Your task to perform on an android device: Turn on the flashlight Image 0: 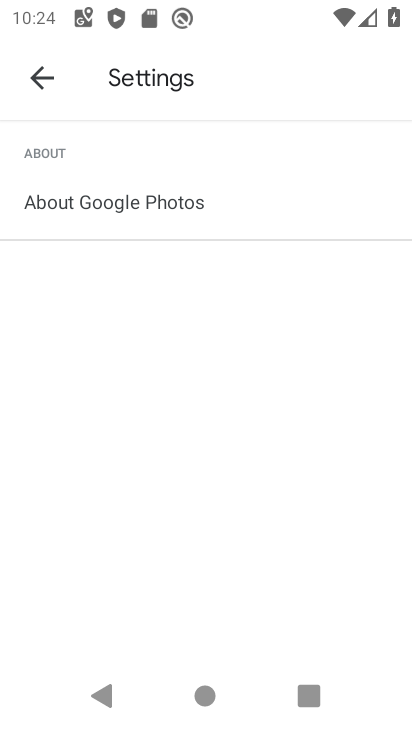
Step 0: press back button
Your task to perform on an android device: Turn on the flashlight Image 1: 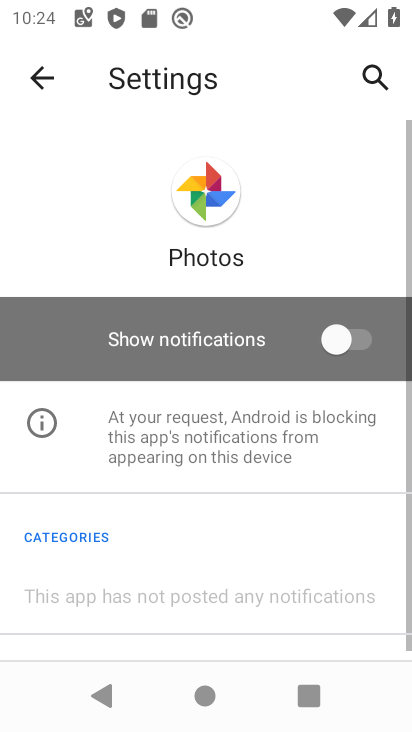
Step 1: drag from (13, 652) to (397, 99)
Your task to perform on an android device: Turn on the flashlight Image 2: 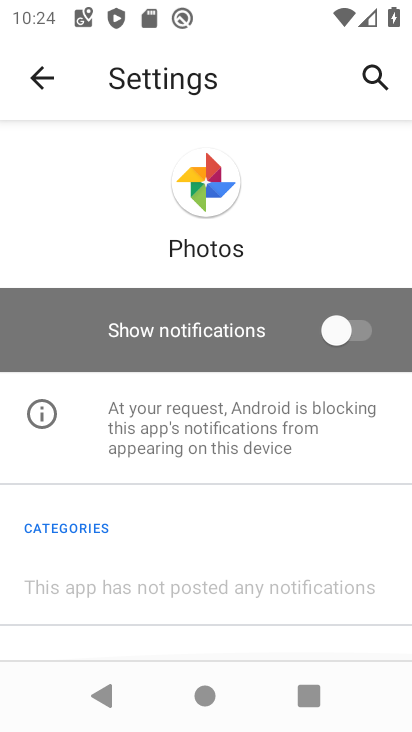
Step 2: press home button
Your task to perform on an android device: Turn on the flashlight Image 3: 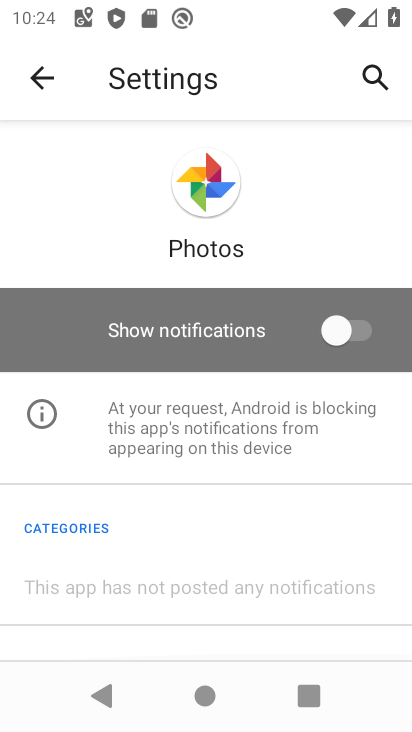
Step 3: click (336, 651)
Your task to perform on an android device: Turn on the flashlight Image 4: 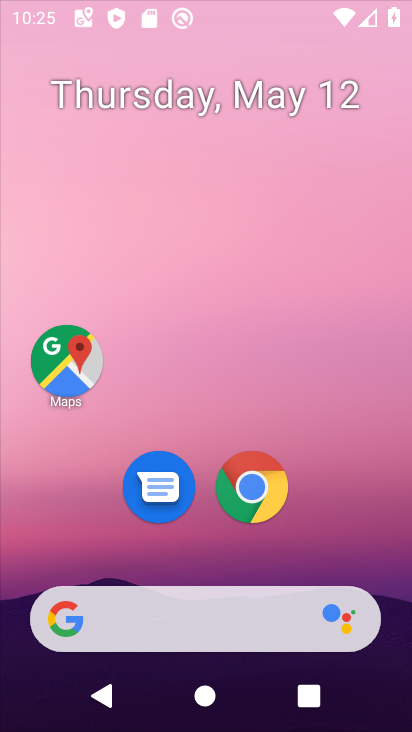
Step 4: drag from (71, 655) to (345, 95)
Your task to perform on an android device: Turn on the flashlight Image 5: 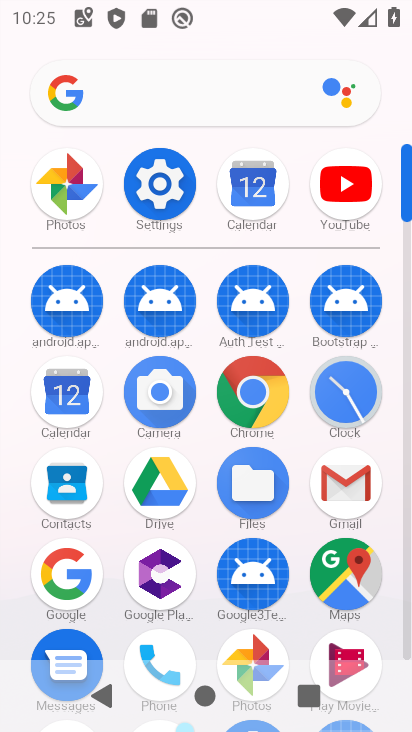
Step 5: click (165, 161)
Your task to perform on an android device: Turn on the flashlight Image 6: 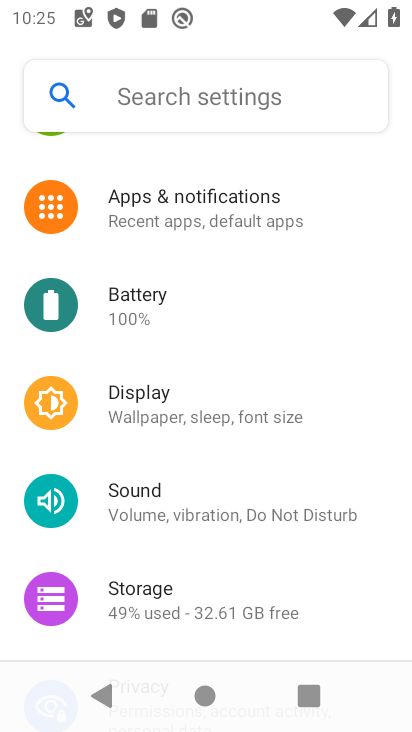
Step 6: task complete